Your task to perform on an android device: WHat are the new products by Samsung on eBay? Image 0: 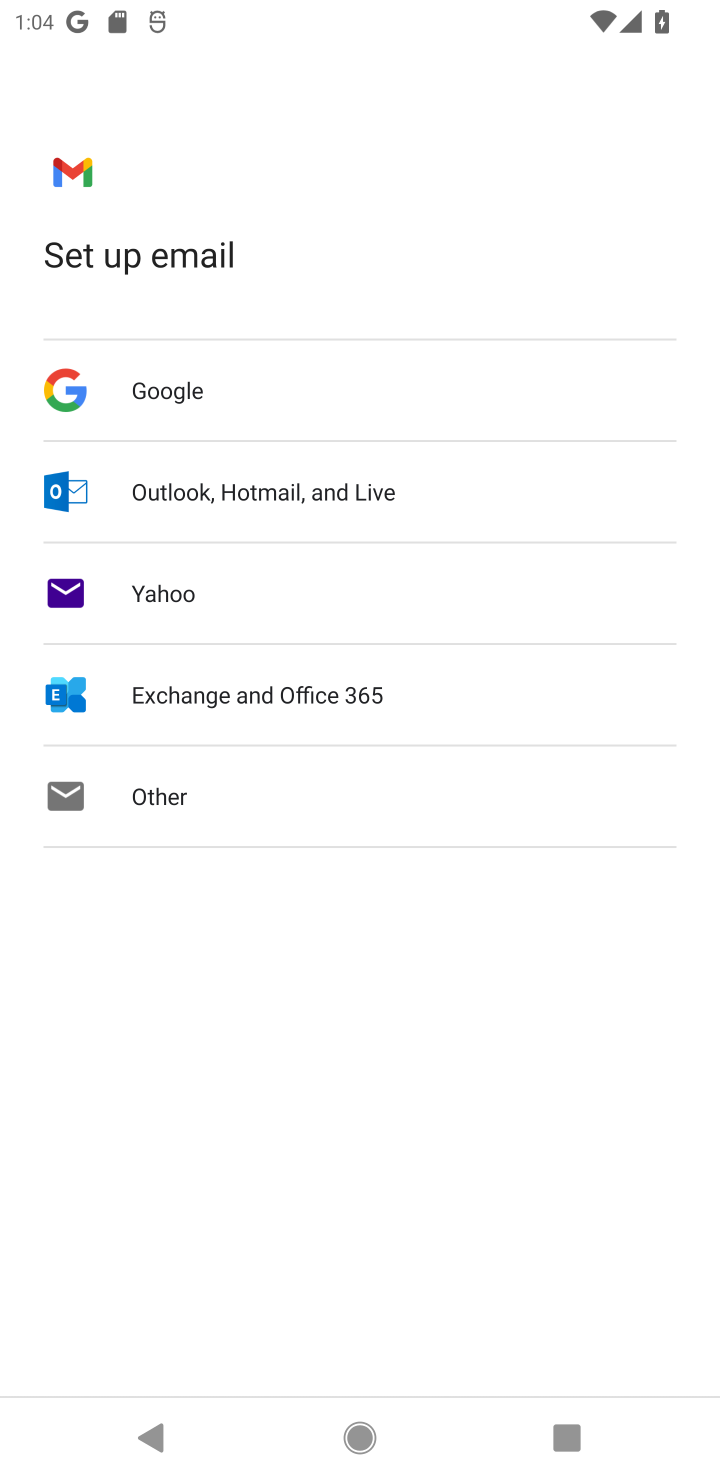
Step 0: press home button
Your task to perform on an android device: WHat are the new products by Samsung on eBay? Image 1: 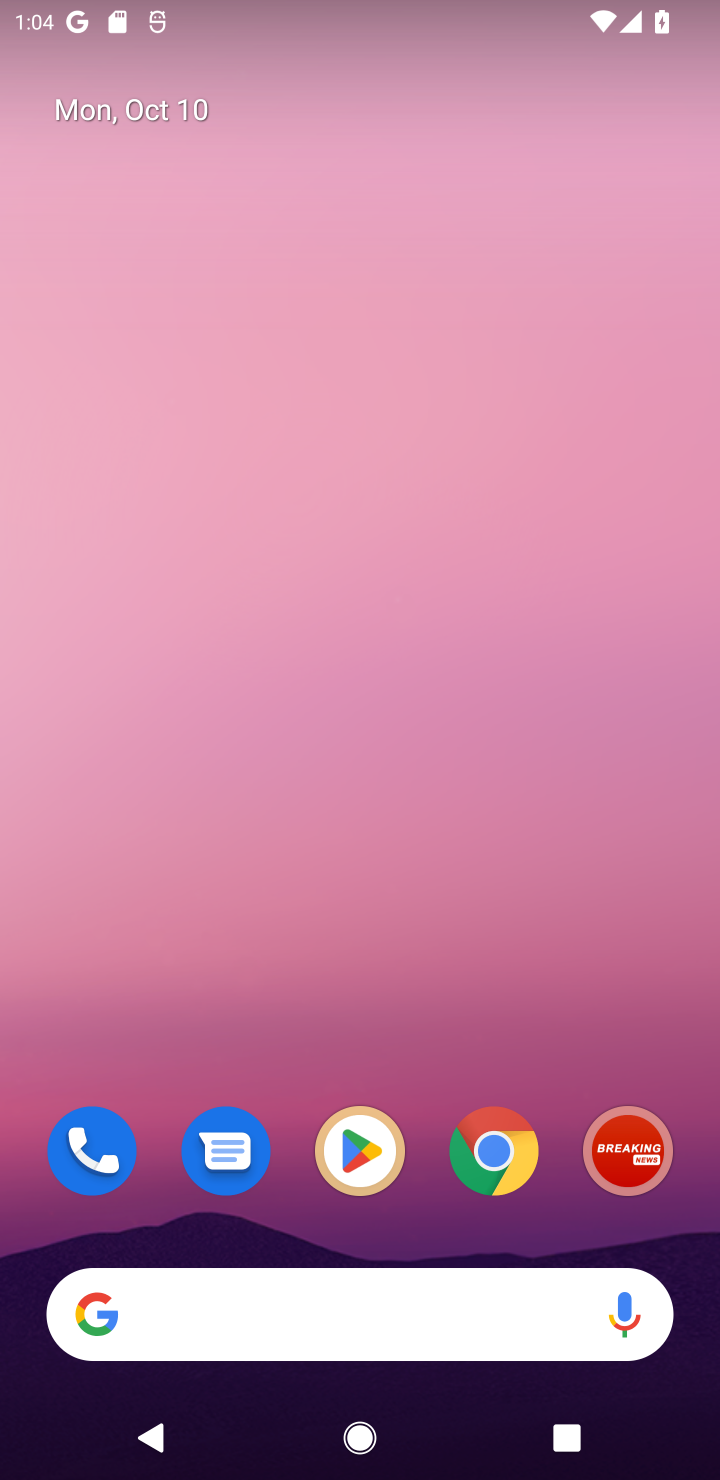
Step 1: click (214, 1335)
Your task to perform on an android device: WHat are the new products by Samsung on eBay? Image 2: 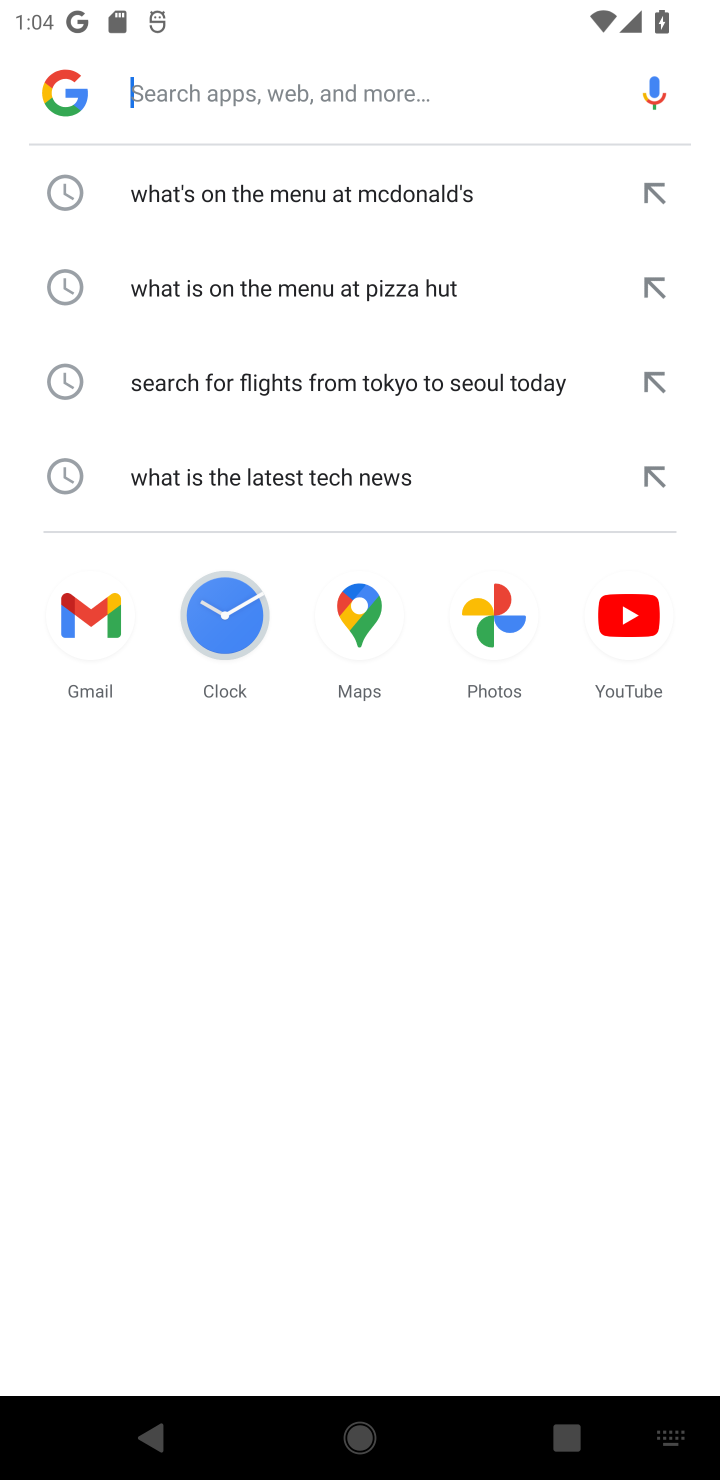
Step 2: type "WHat are the new products by Samsung on eBay?"
Your task to perform on an android device: WHat are the new products by Samsung on eBay? Image 3: 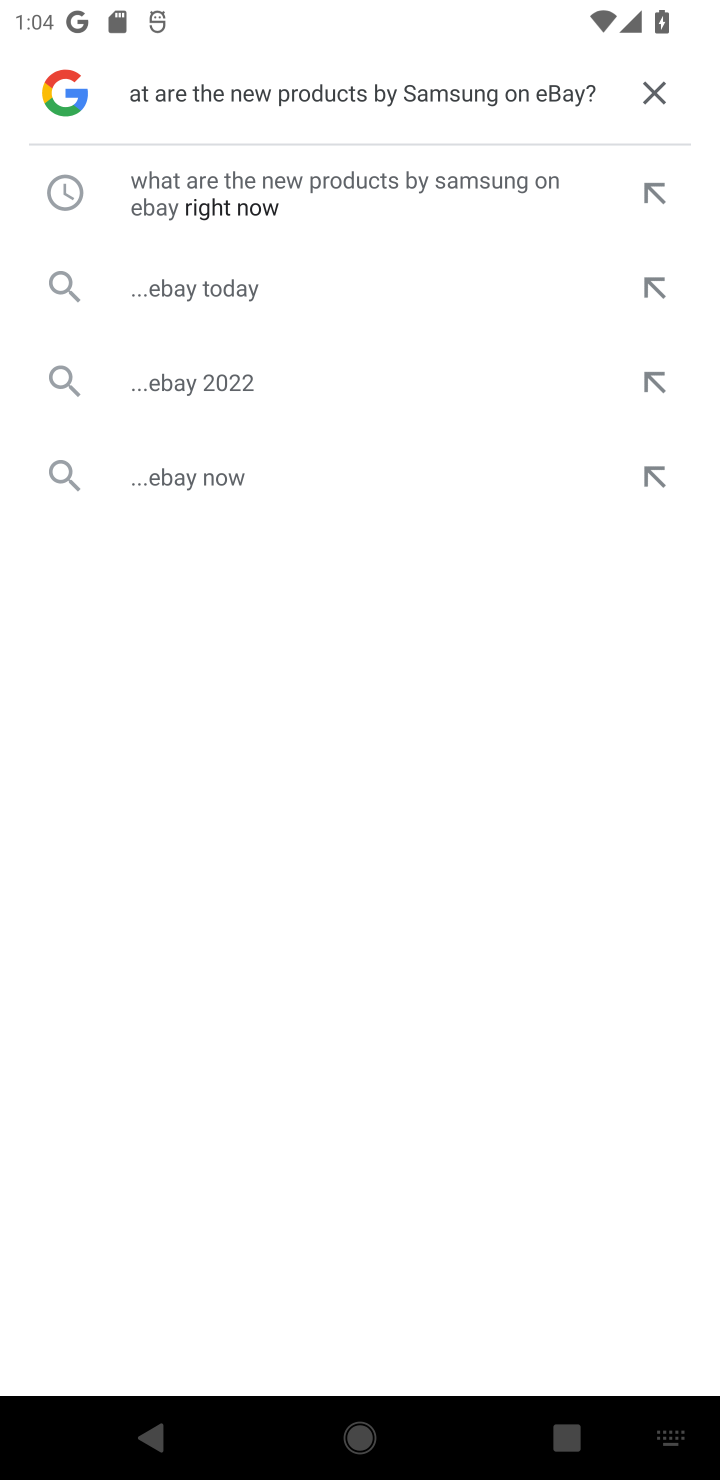
Step 3: click (245, 280)
Your task to perform on an android device: WHat are the new products by Samsung on eBay? Image 4: 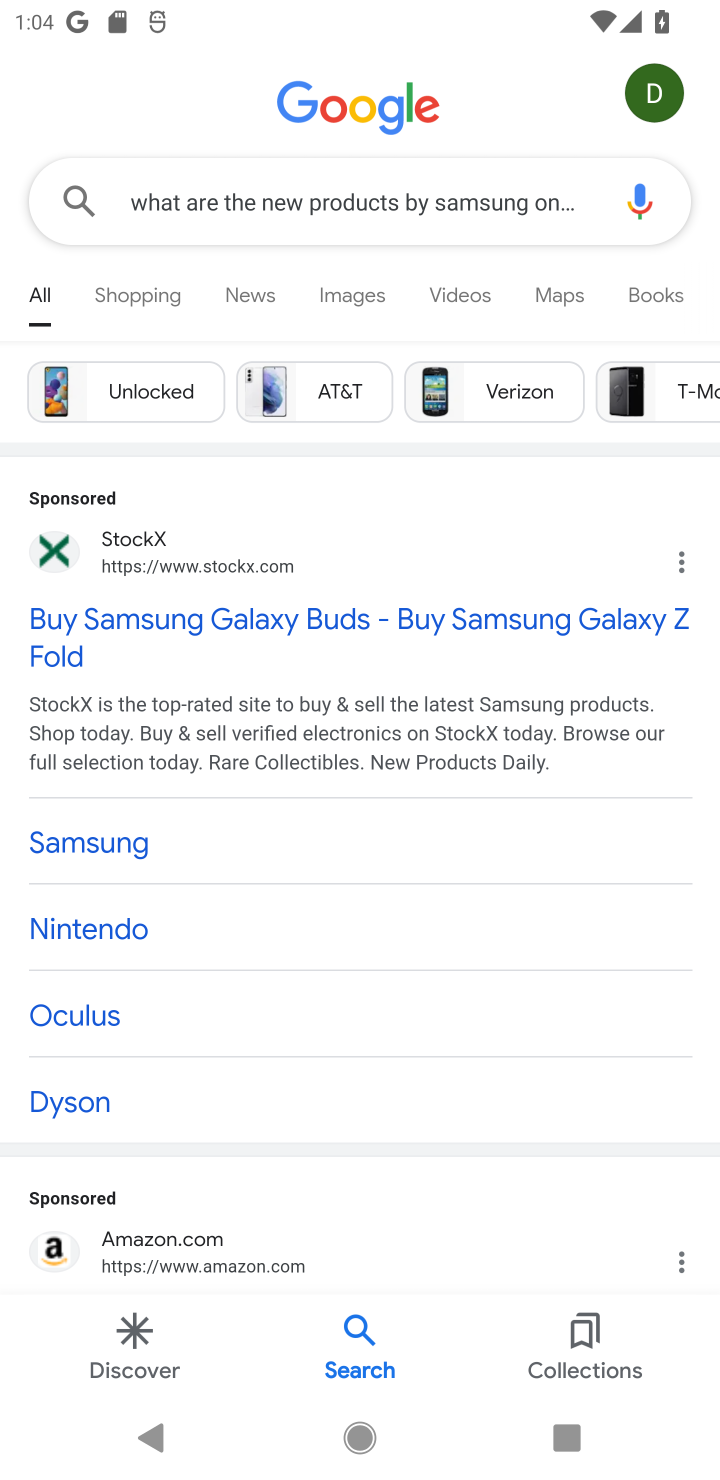
Step 4: click (241, 623)
Your task to perform on an android device: WHat are the new products by Samsung on eBay? Image 5: 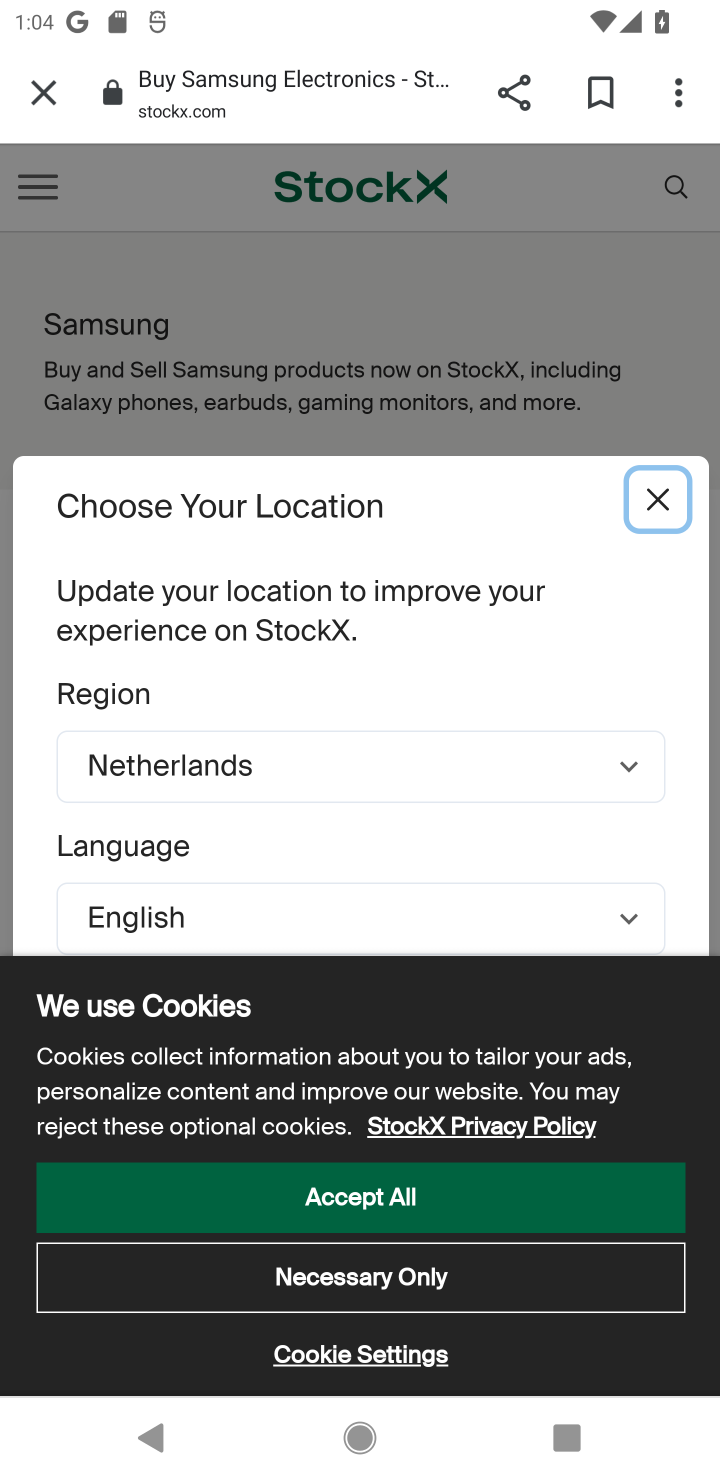
Step 5: click (656, 497)
Your task to perform on an android device: WHat are the new products by Samsung on eBay? Image 6: 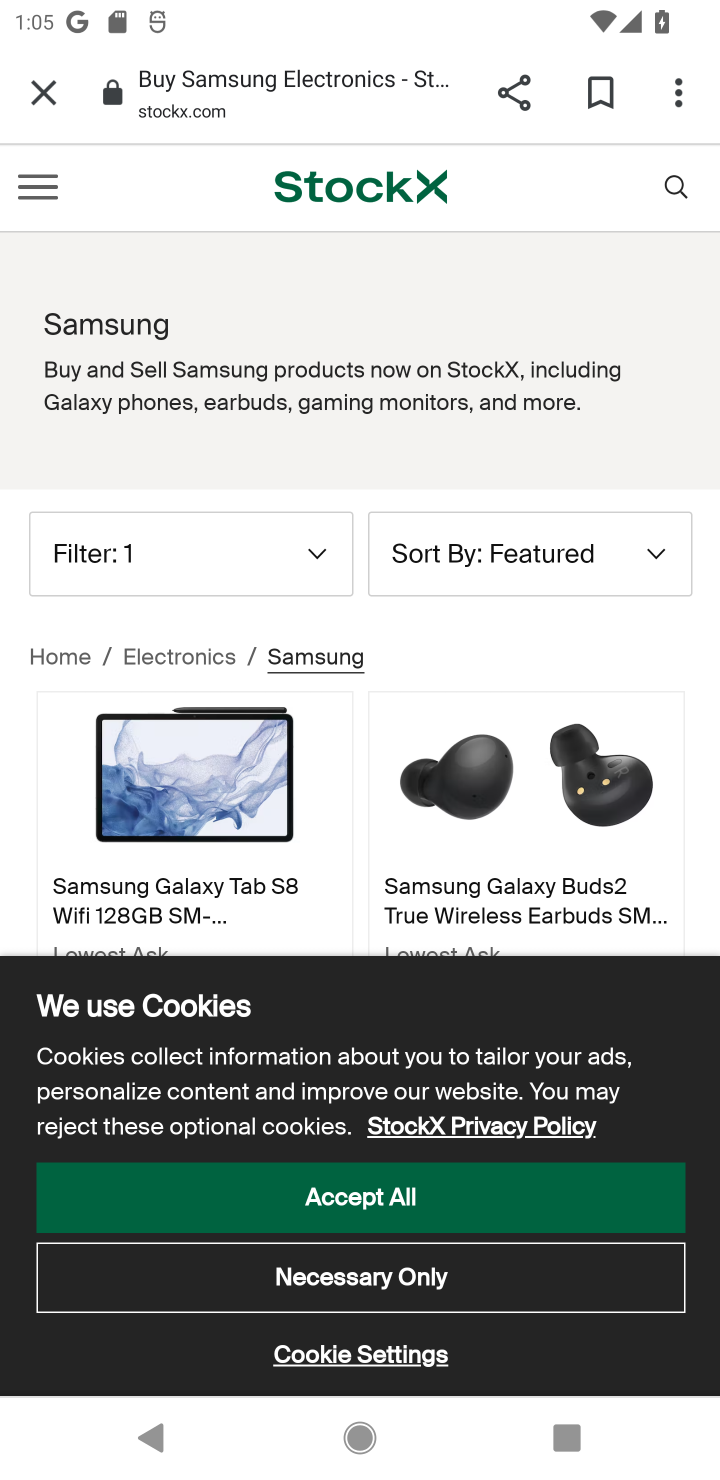
Step 6: click (356, 1211)
Your task to perform on an android device: WHat are the new products by Samsung on eBay? Image 7: 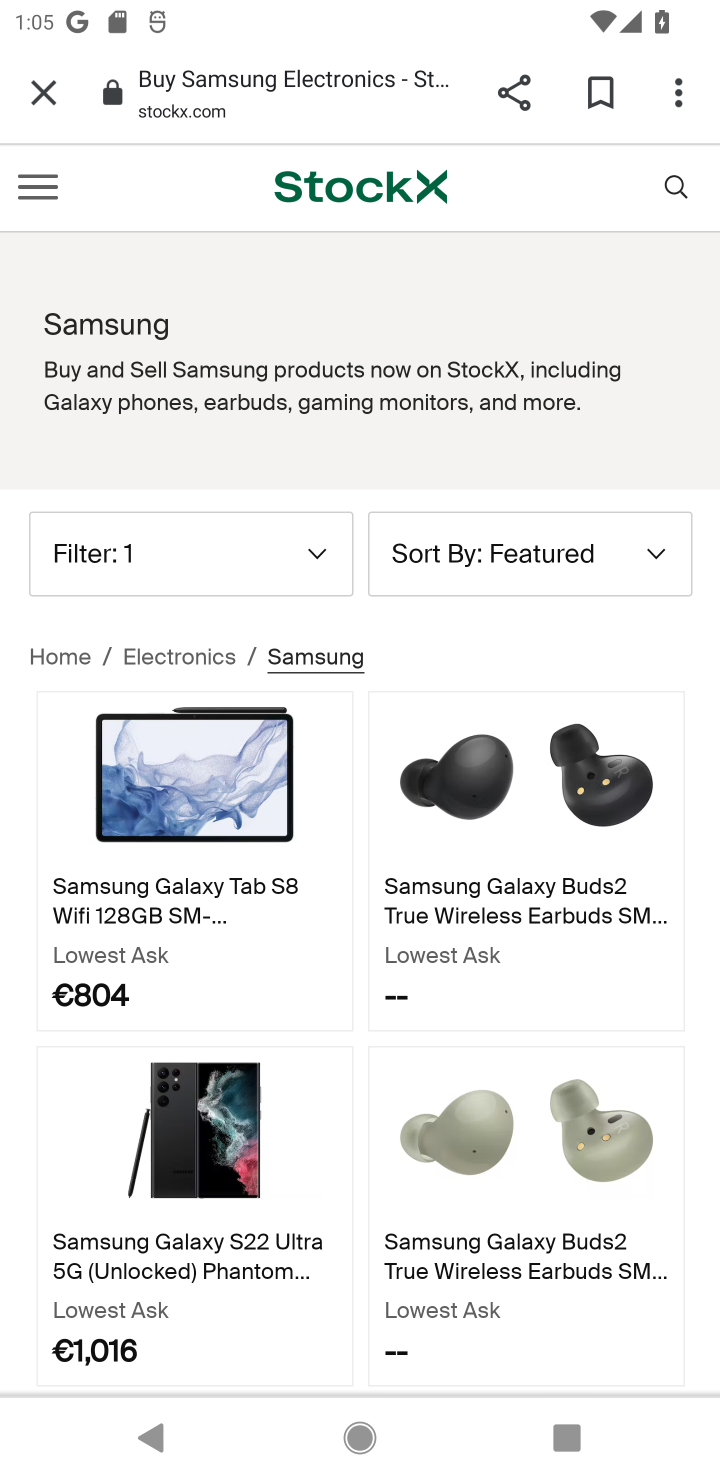
Step 7: task complete